Your task to perform on an android device: check out phone information Image 0: 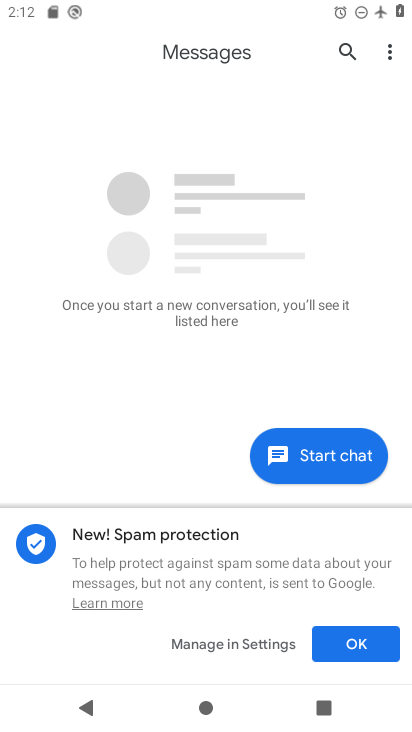
Step 0: press home button
Your task to perform on an android device: check out phone information Image 1: 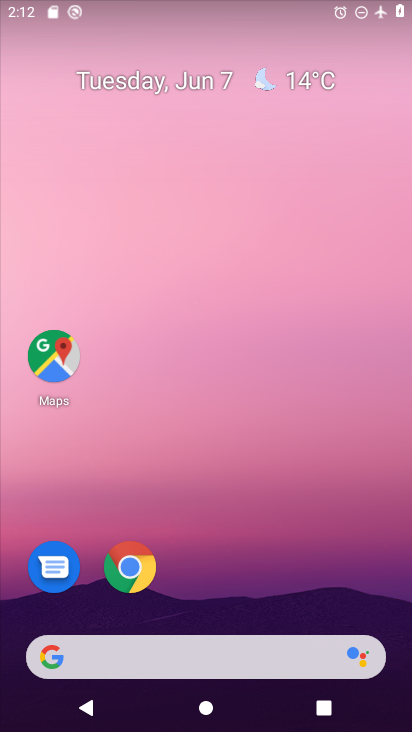
Step 1: drag from (327, 597) to (256, 86)
Your task to perform on an android device: check out phone information Image 2: 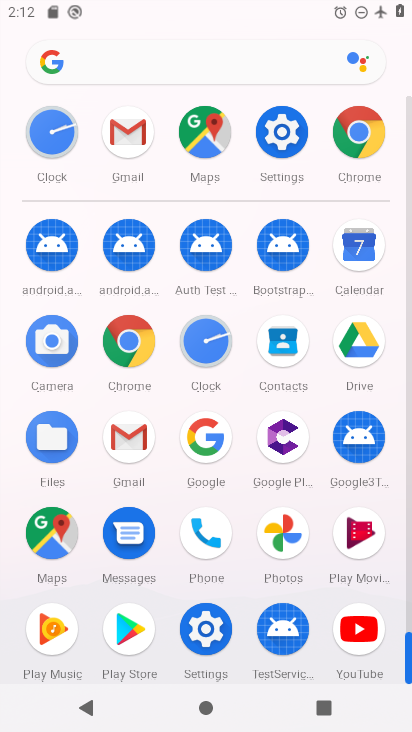
Step 2: click (270, 115)
Your task to perform on an android device: check out phone information Image 3: 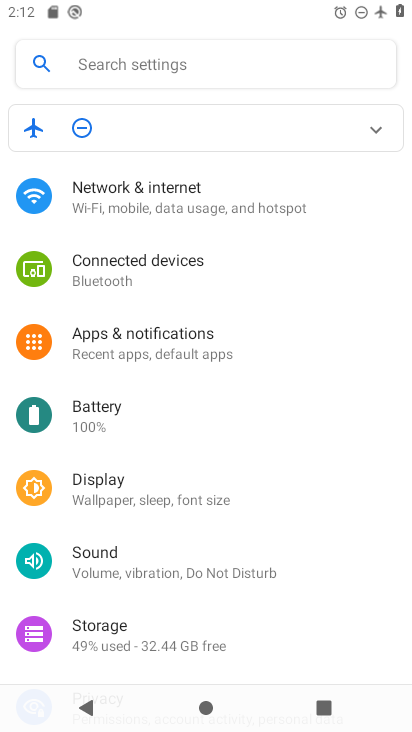
Step 3: drag from (241, 567) to (264, 123)
Your task to perform on an android device: check out phone information Image 4: 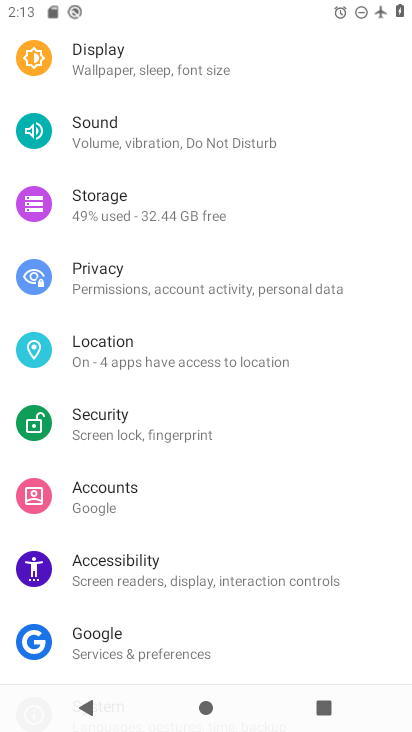
Step 4: drag from (265, 491) to (236, 60)
Your task to perform on an android device: check out phone information Image 5: 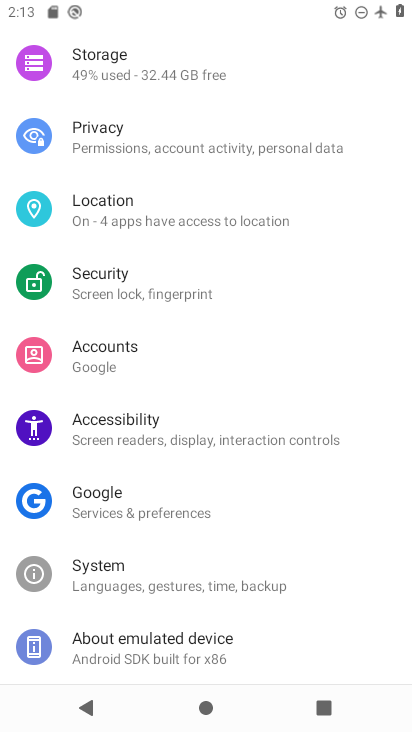
Step 5: click (141, 651)
Your task to perform on an android device: check out phone information Image 6: 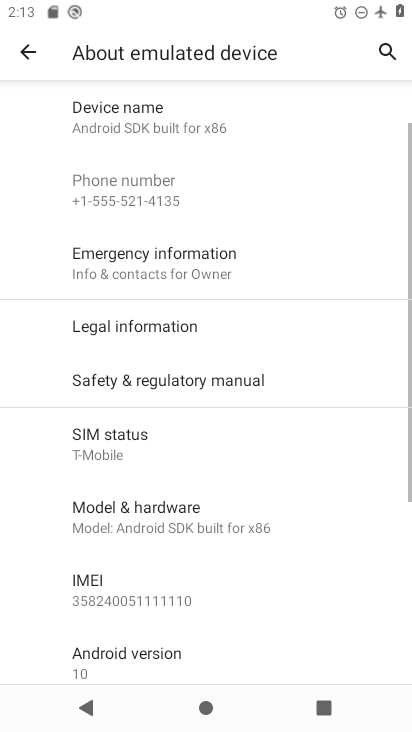
Step 6: task complete